Your task to perform on an android device: Clear the cart on ebay. Image 0: 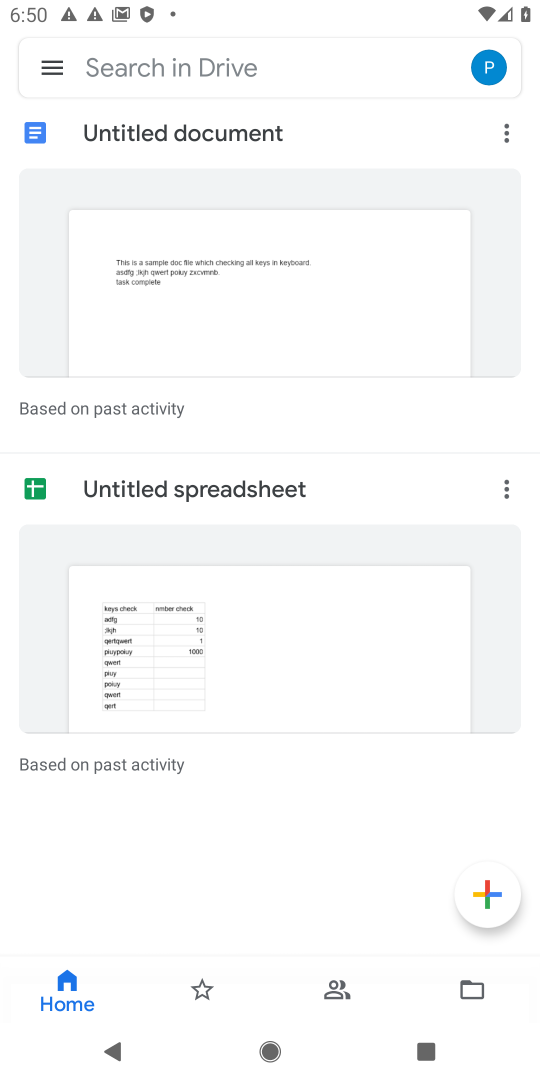
Step 0: press home button
Your task to perform on an android device: Clear the cart on ebay. Image 1: 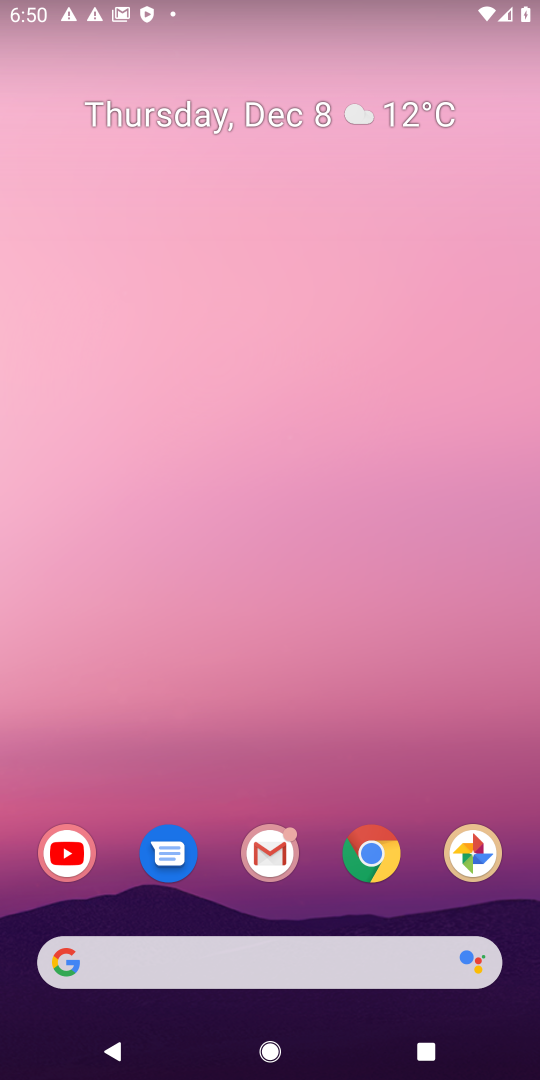
Step 1: click (194, 950)
Your task to perform on an android device: Clear the cart on ebay. Image 2: 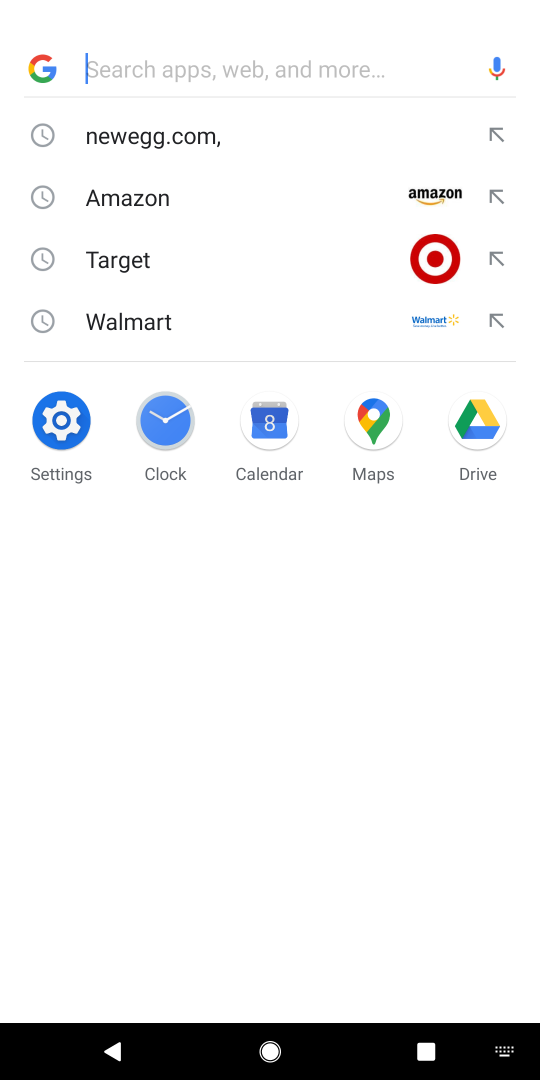
Step 2: type "ebay"
Your task to perform on an android device: Clear the cart on ebay. Image 3: 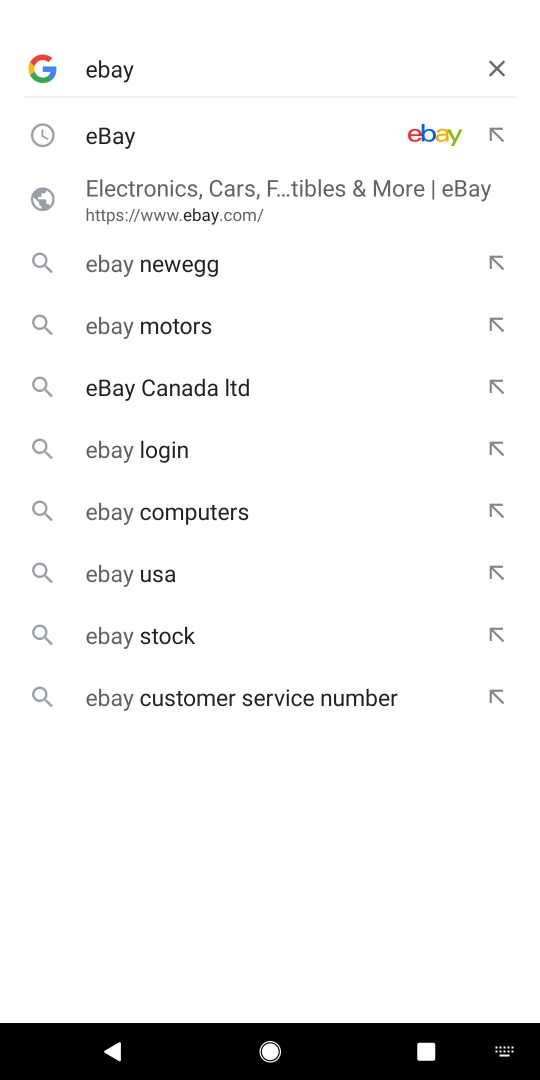
Step 3: click (111, 131)
Your task to perform on an android device: Clear the cart on ebay. Image 4: 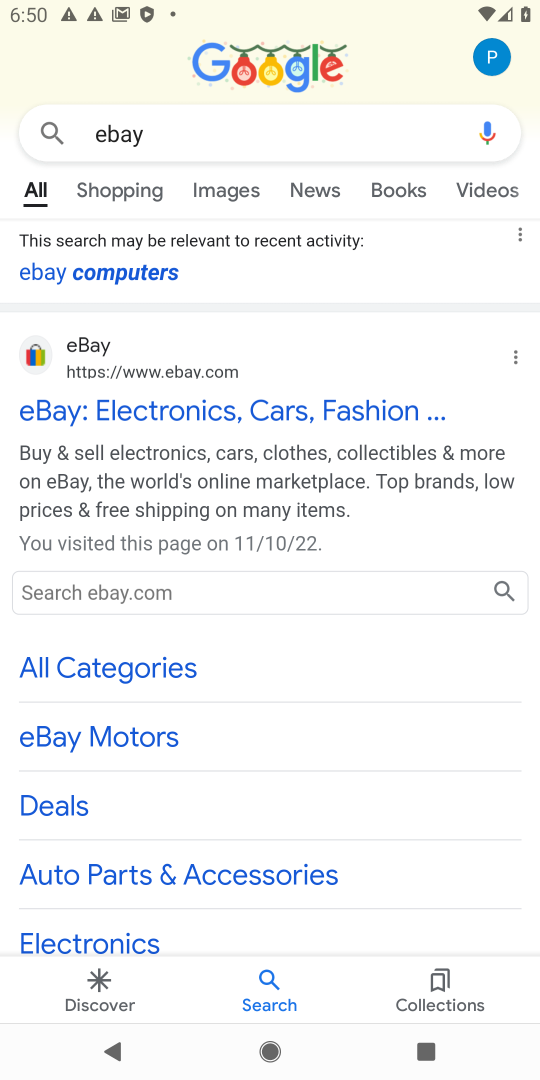
Step 4: click (136, 405)
Your task to perform on an android device: Clear the cart on ebay. Image 5: 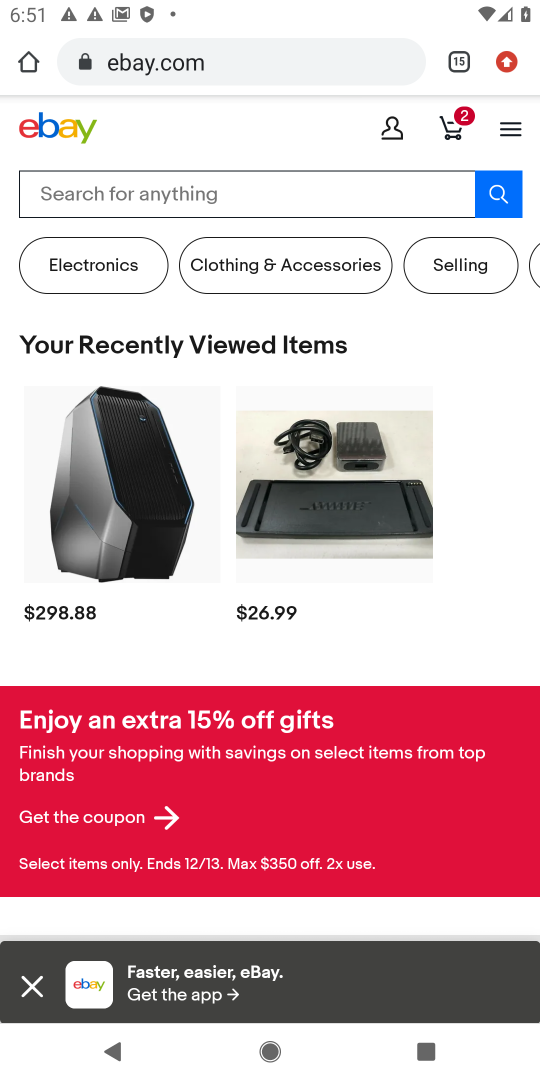
Step 5: click (451, 120)
Your task to perform on an android device: Clear the cart on ebay. Image 6: 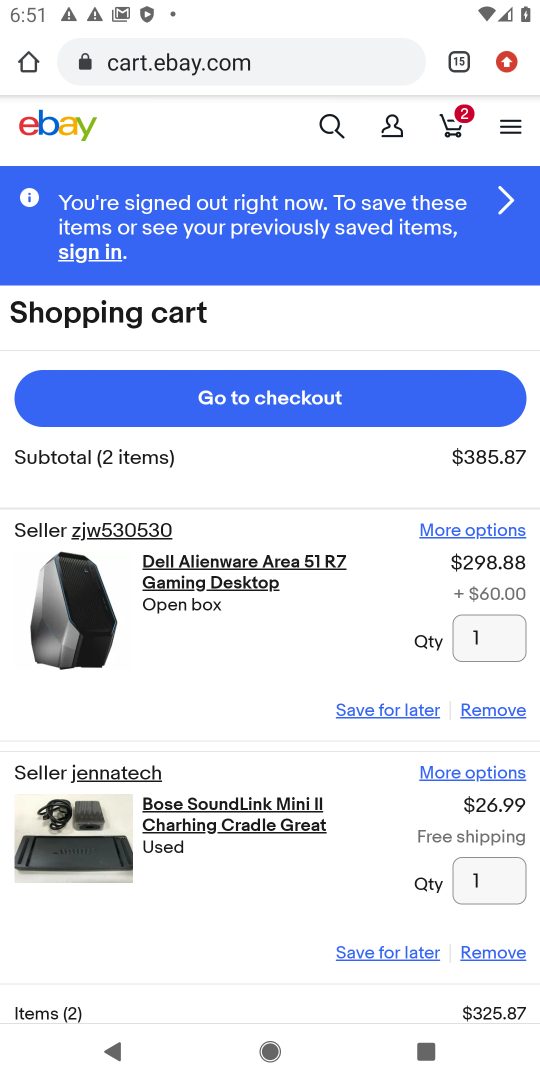
Step 6: click (472, 711)
Your task to perform on an android device: Clear the cart on ebay. Image 7: 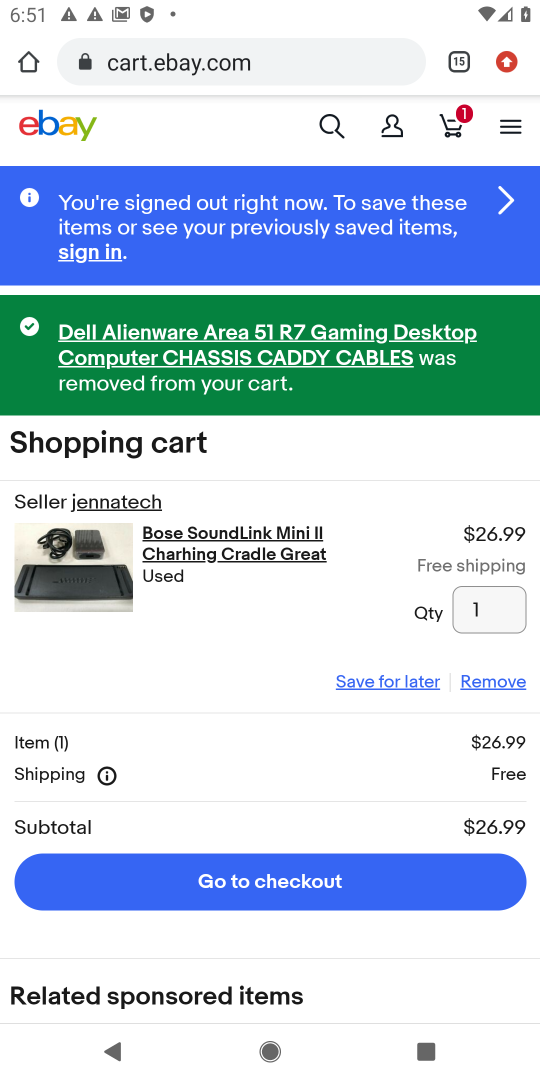
Step 7: click (488, 679)
Your task to perform on an android device: Clear the cart on ebay. Image 8: 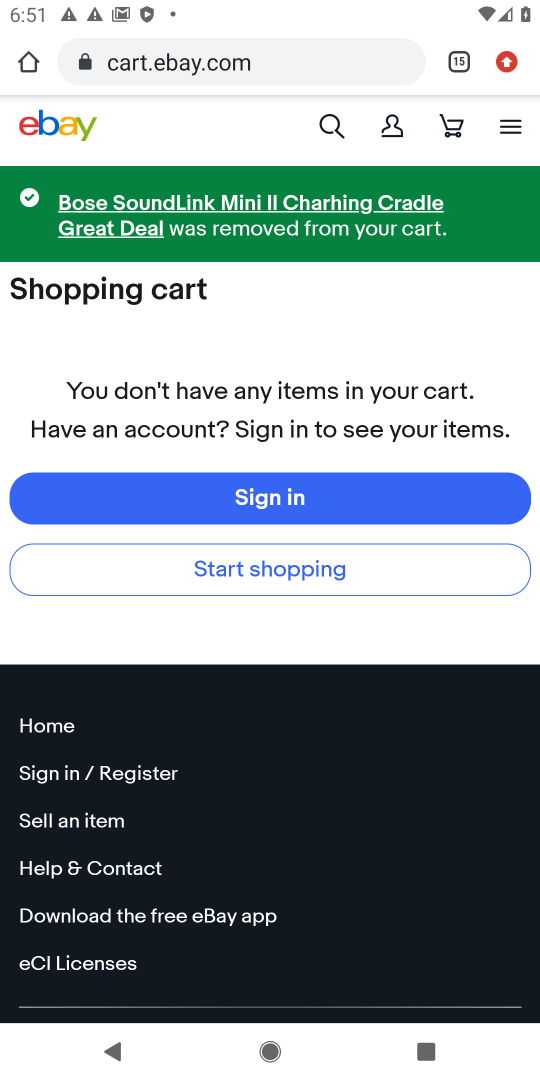
Step 8: task complete